Your task to perform on an android device: Open the Play Movies app and select the watchlist tab. Image 0: 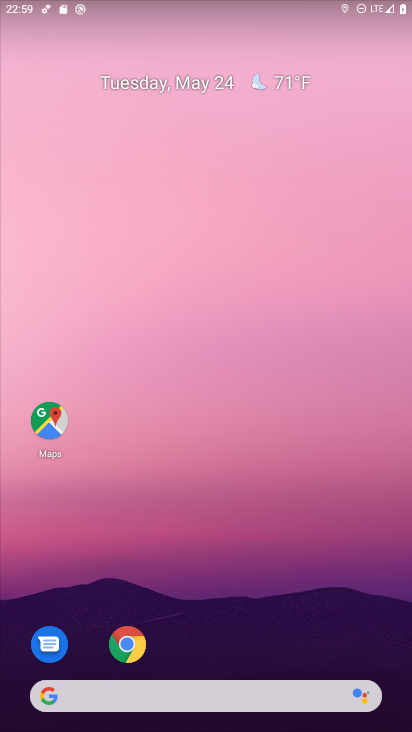
Step 0: drag from (264, 558) to (245, 98)
Your task to perform on an android device: Open the Play Movies app and select the watchlist tab. Image 1: 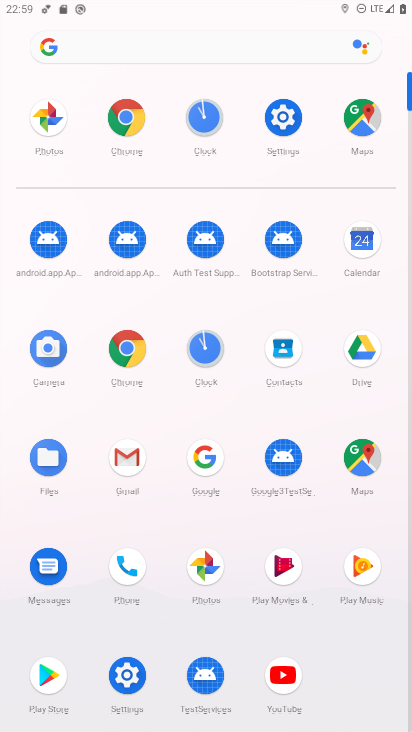
Step 1: click (282, 568)
Your task to perform on an android device: Open the Play Movies app and select the watchlist tab. Image 2: 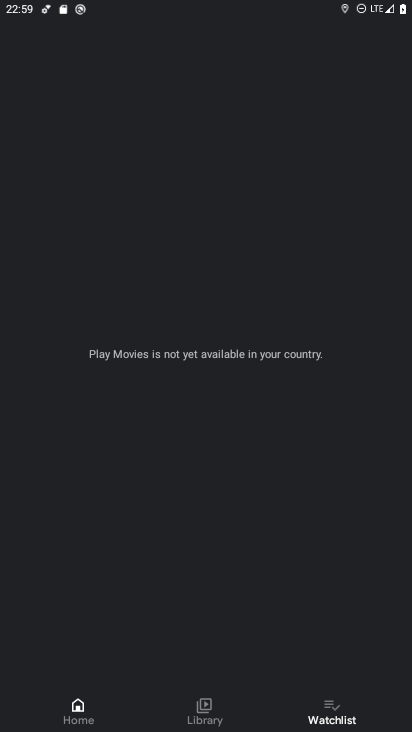
Step 2: click (325, 714)
Your task to perform on an android device: Open the Play Movies app and select the watchlist tab. Image 3: 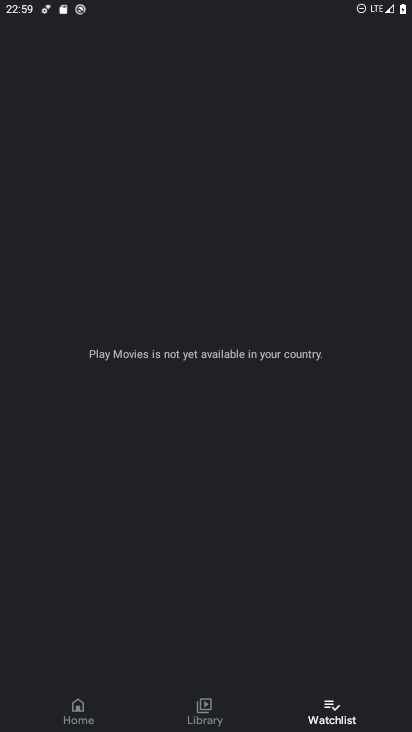
Step 3: task complete